Your task to perform on an android device: search for starred emails in the gmail app Image 0: 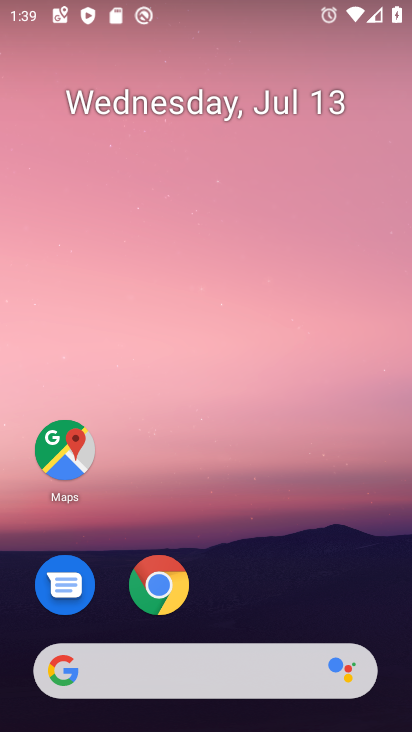
Step 0: drag from (233, 679) to (410, 205)
Your task to perform on an android device: search for starred emails in the gmail app Image 1: 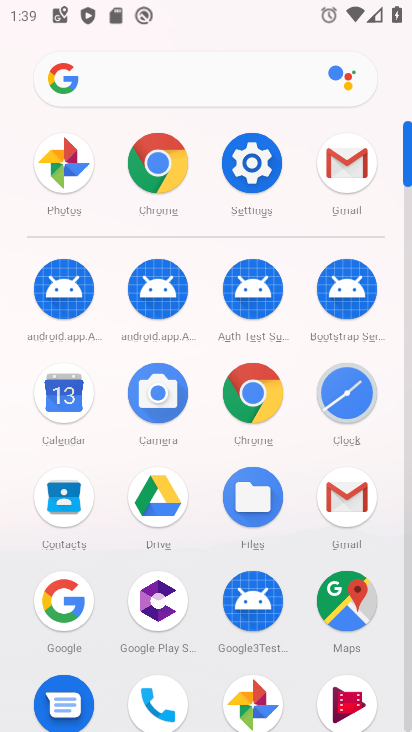
Step 1: click (343, 172)
Your task to perform on an android device: search for starred emails in the gmail app Image 2: 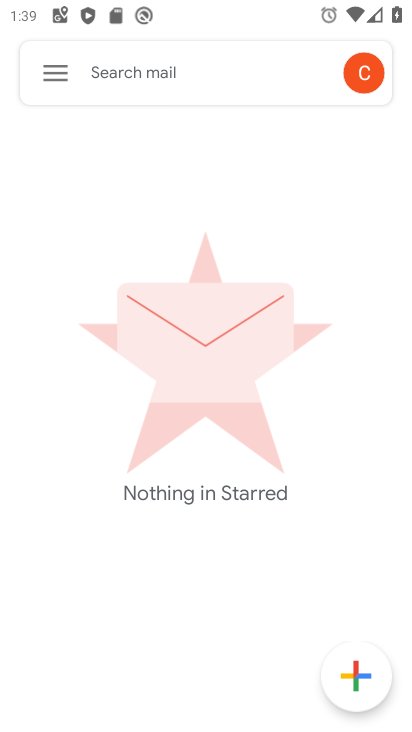
Step 2: click (59, 76)
Your task to perform on an android device: search for starred emails in the gmail app Image 3: 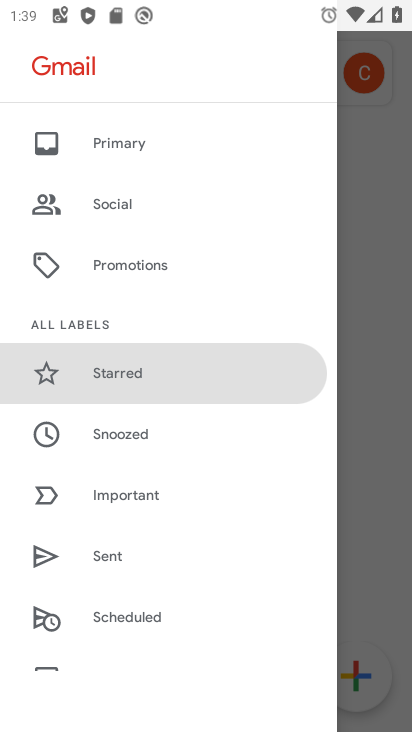
Step 3: click (116, 374)
Your task to perform on an android device: search for starred emails in the gmail app Image 4: 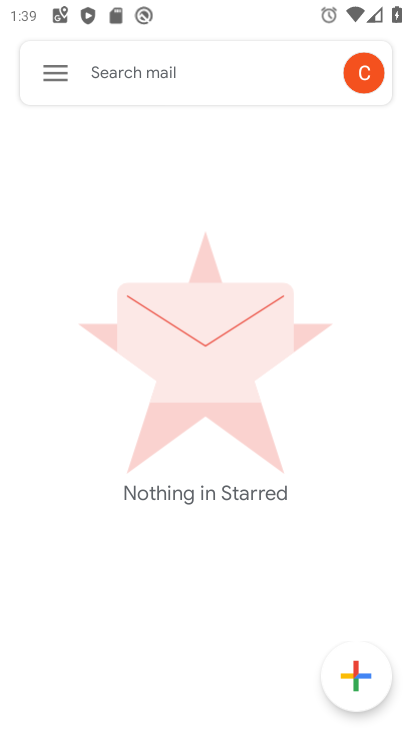
Step 4: task complete